Your task to perform on an android device: What's the weather today? Image 0: 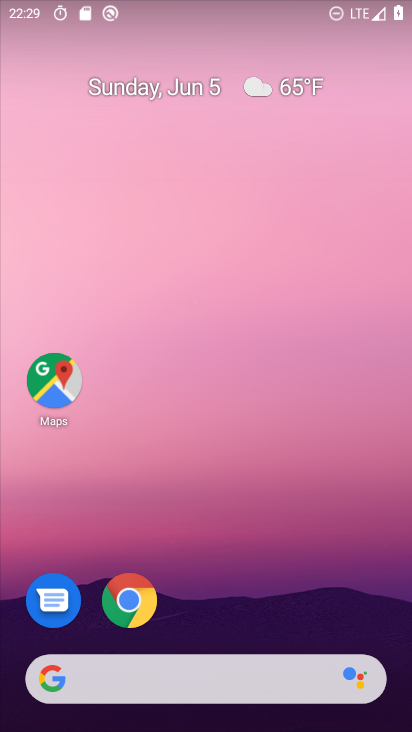
Step 0: click (295, 84)
Your task to perform on an android device: What's the weather today? Image 1: 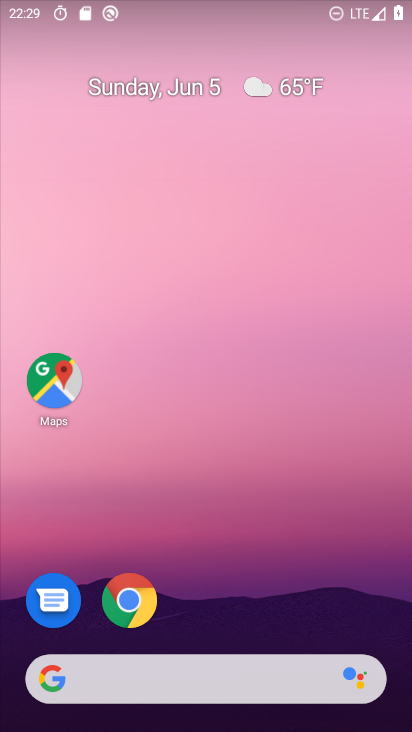
Step 1: click (292, 87)
Your task to perform on an android device: What's the weather today? Image 2: 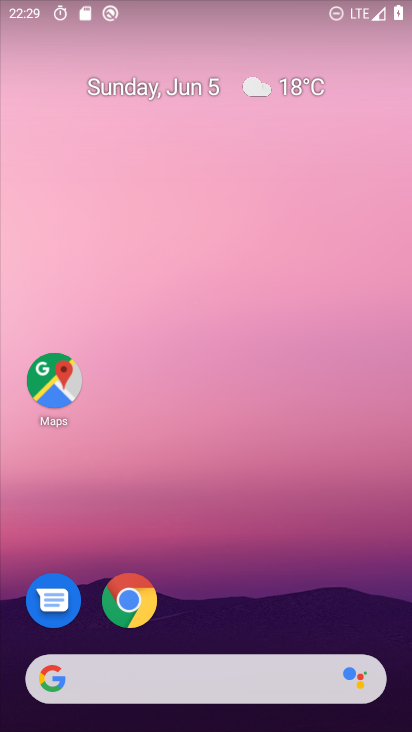
Step 2: drag from (236, 577) to (262, 125)
Your task to perform on an android device: What's the weather today? Image 3: 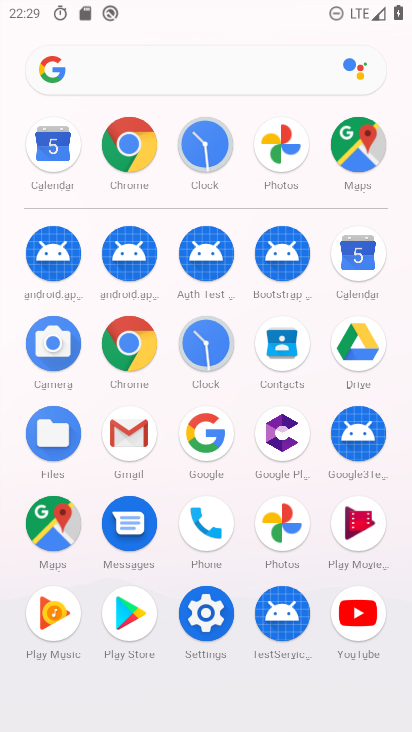
Step 3: click (124, 140)
Your task to perform on an android device: What's the weather today? Image 4: 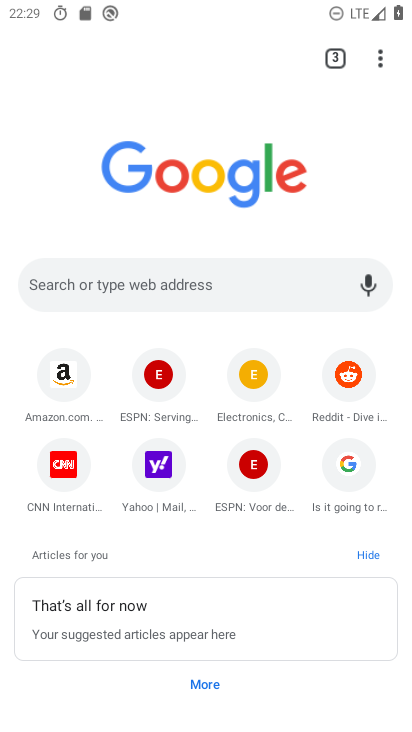
Step 4: click (190, 284)
Your task to perform on an android device: What's the weather today? Image 5: 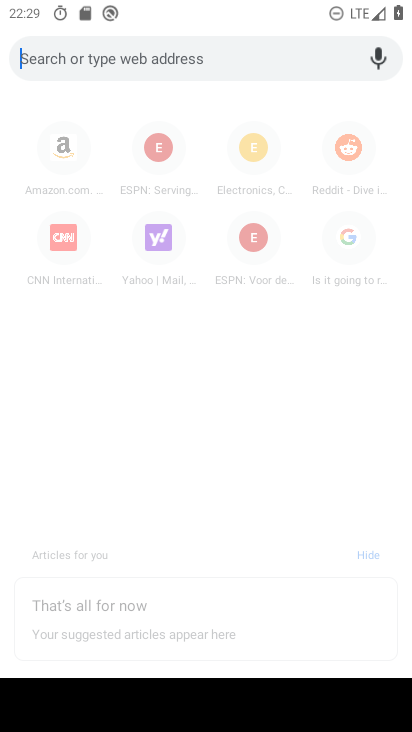
Step 5: type "weather"
Your task to perform on an android device: What's the weather today? Image 6: 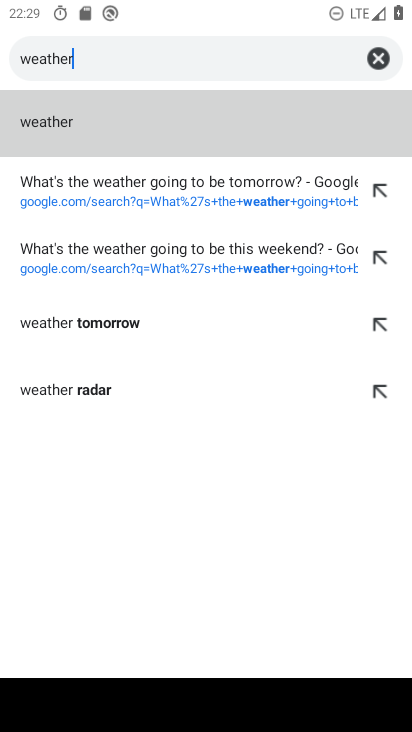
Step 6: click (41, 121)
Your task to perform on an android device: What's the weather today? Image 7: 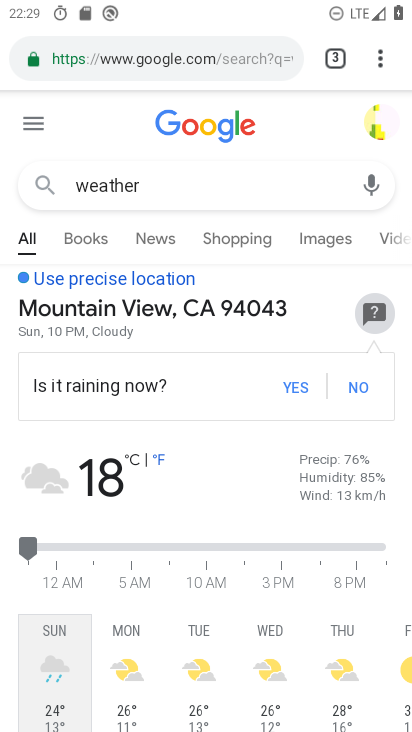
Step 7: task complete